Your task to perform on an android device: open app "The Home Depot" (install if not already installed) Image 0: 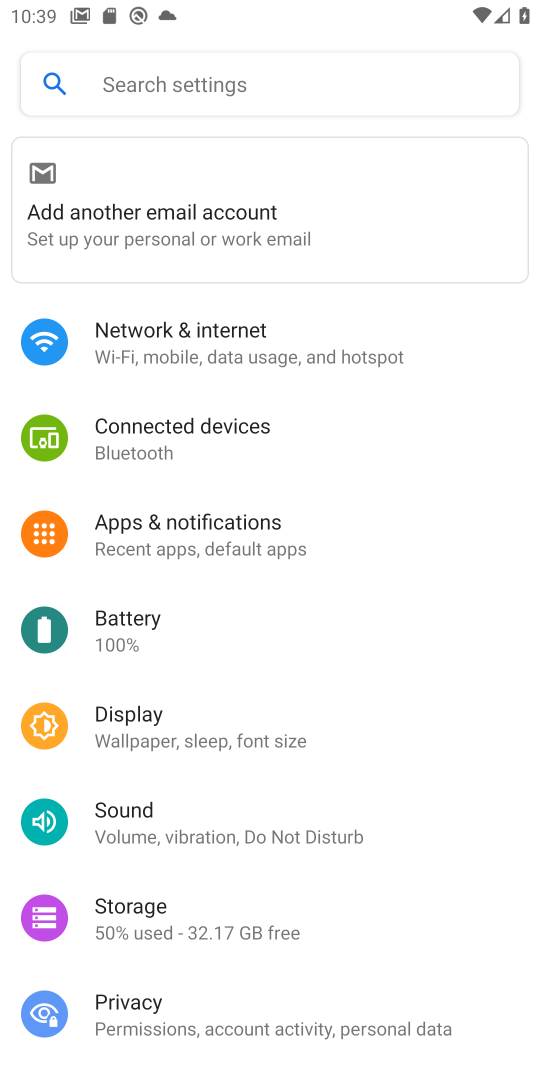
Step 0: press home button
Your task to perform on an android device: open app "The Home Depot" (install if not already installed) Image 1: 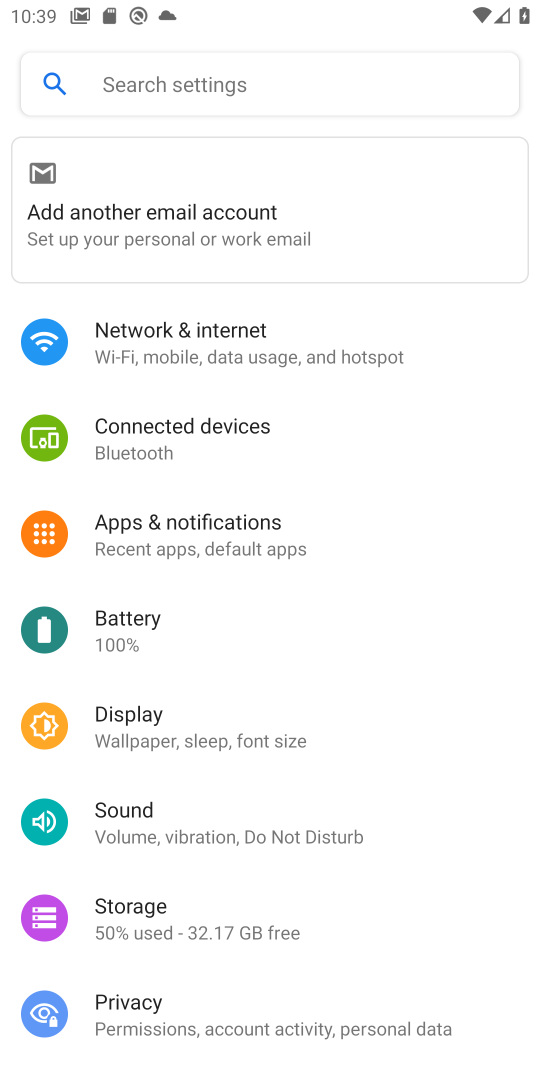
Step 1: press home button
Your task to perform on an android device: open app "The Home Depot" (install if not already installed) Image 2: 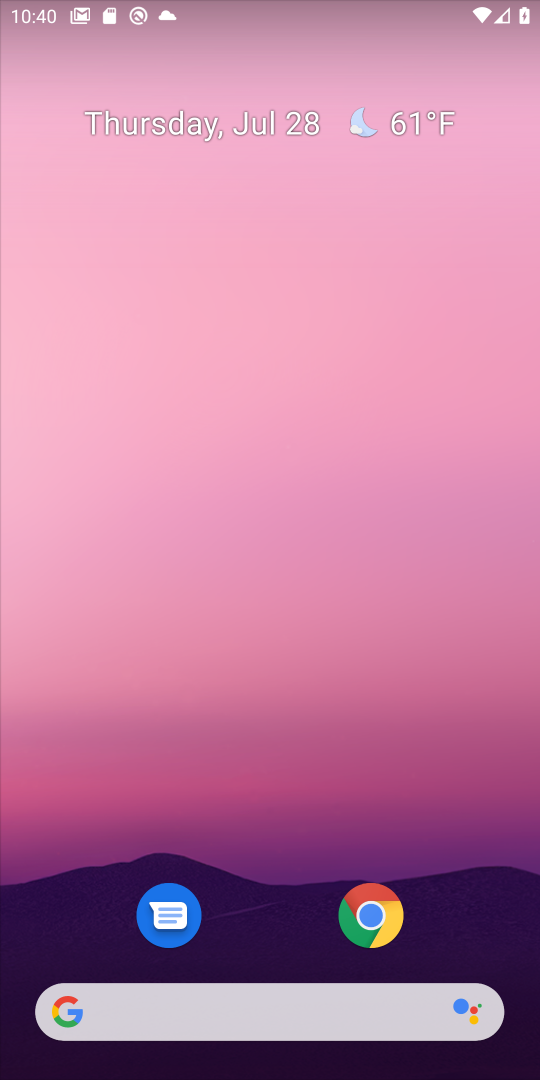
Step 2: drag from (499, 941) to (420, 89)
Your task to perform on an android device: open app "The Home Depot" (install if not already installed) Image 3: 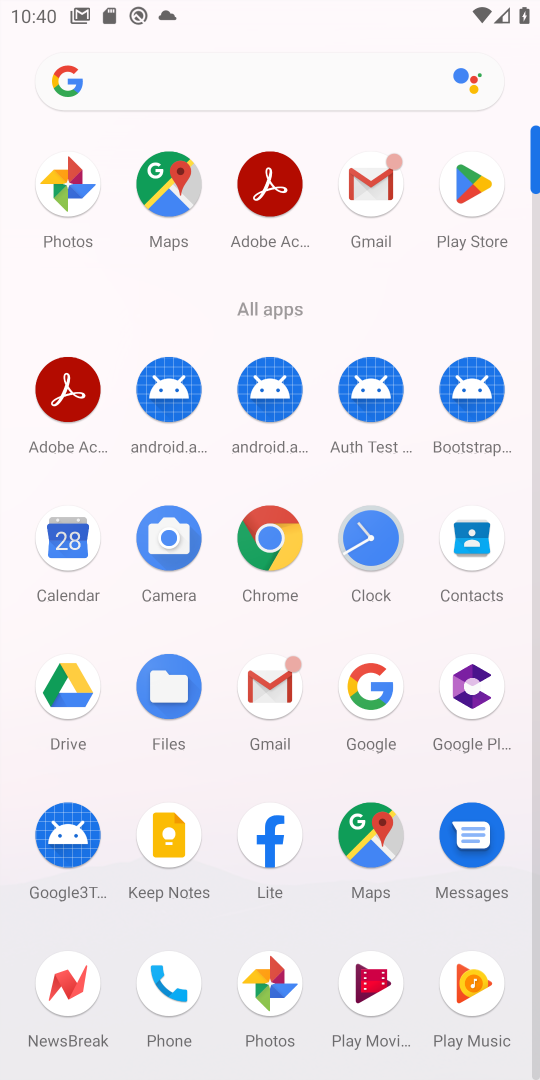
Step 3: click (451, 210)
Your task to perform on an android device: open app "The Home Depot" (install if not already installed) Image 4: 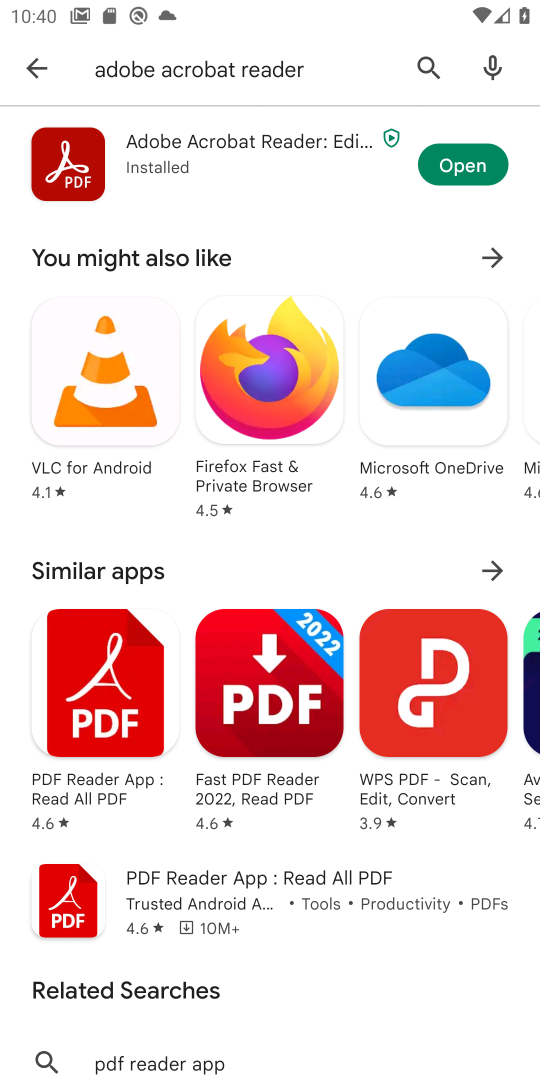
Step 4: click (433, 57)
Your task to perform on an android device: open app "The Home Depot" (install if not already installed) Image 5: 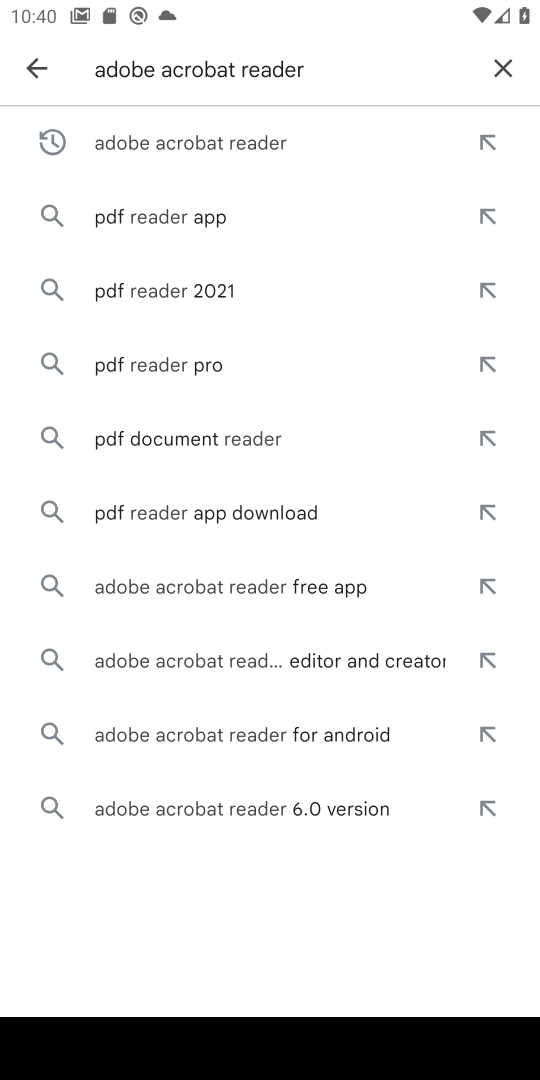
Step 5: click (503, 56)
Your task to perform on an android device: open app "The Home Depot" (install if not already installed) Image 6: 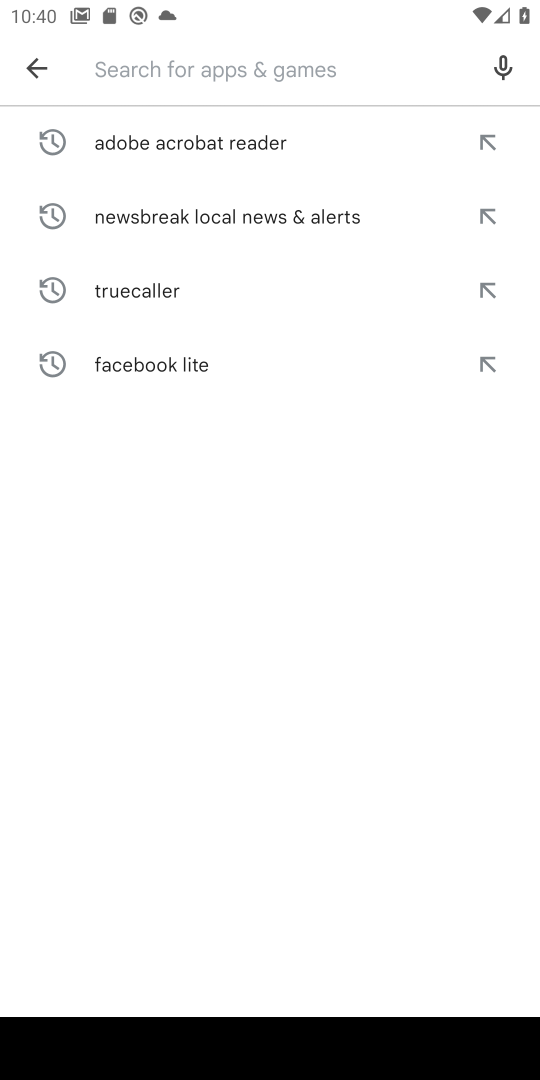
Step 6: type "The Home Depot"
Your task to perform on an android device: open app "The Home Depot" (install if not already installed) Image 7: 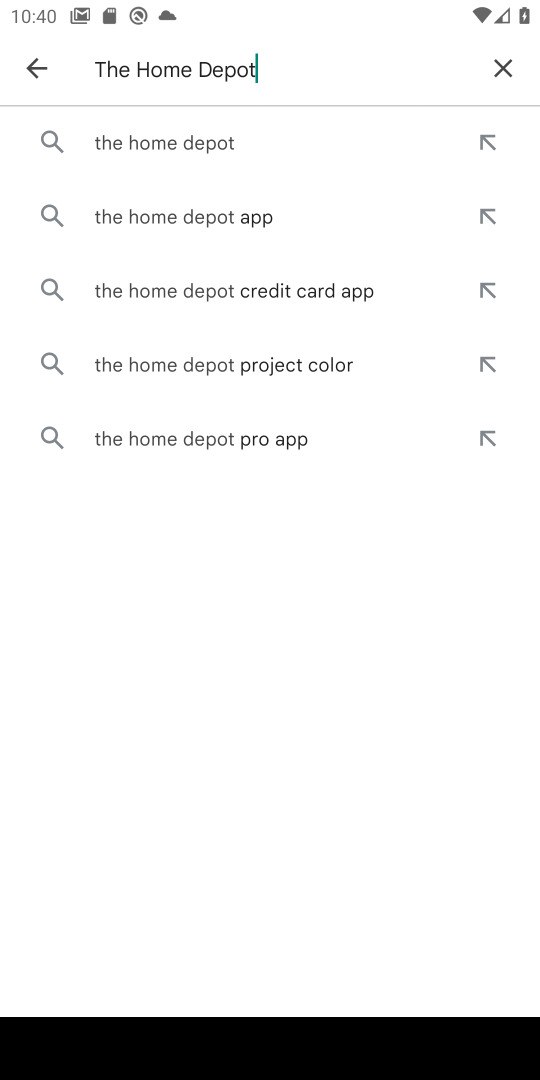
Step 7: click (147, 128)
Your task to perform on an android device: open app "The Home Depot" (install if not already installed) Image 8: 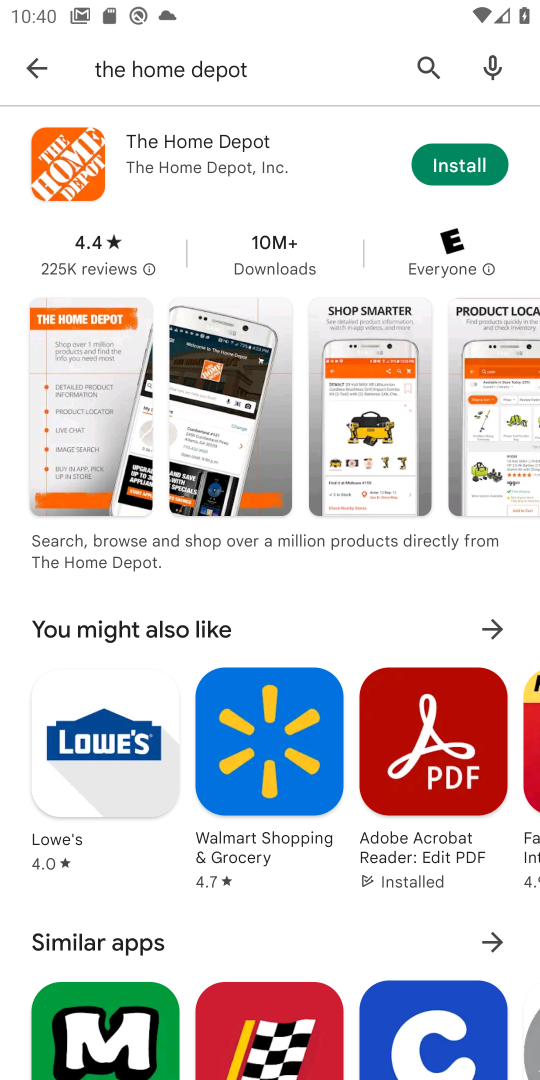
Step 8: click (466, 162)
Your task to perform on an android device: open app "The Home Depot" (install if not already installed) Image 9: 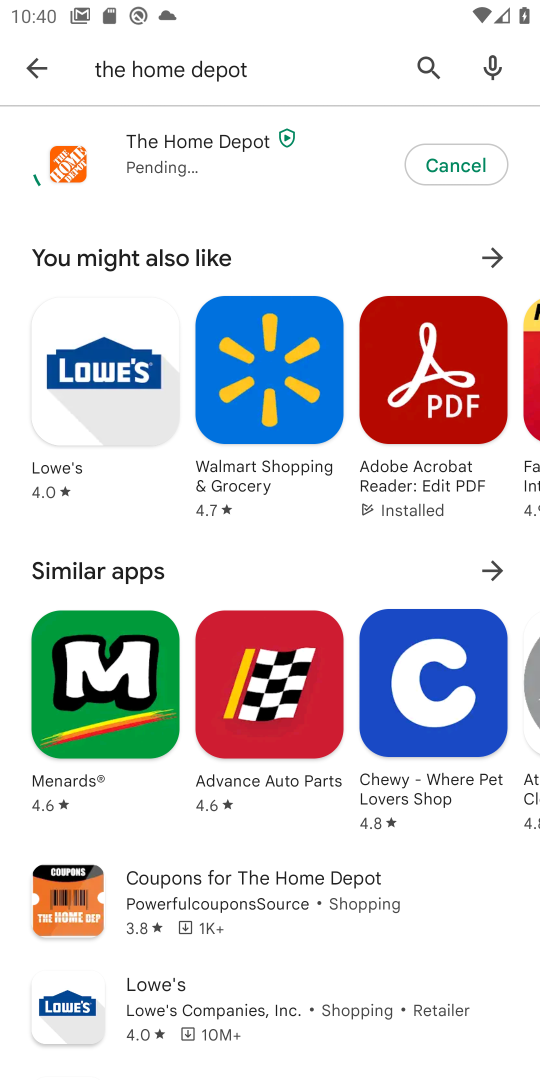
Step 9: click (171, 147)
Your task to perform on an android device: open app "The Home Depot" (install if not already installed) Image 10: 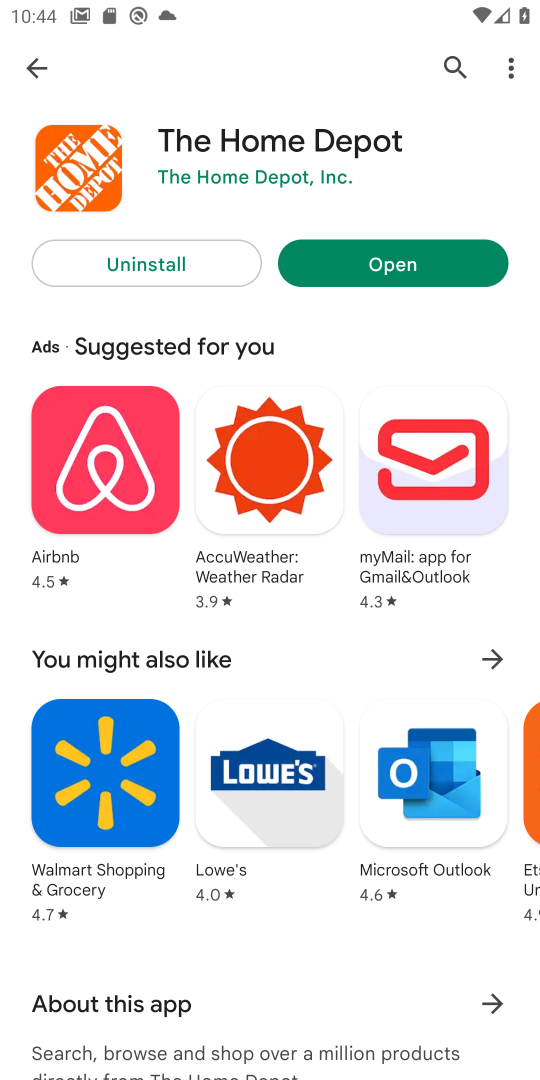
Step 10: click (407, 257)
Your task to perform on an android device: open app "The Home Depot" (install if not already installed) Image 11: 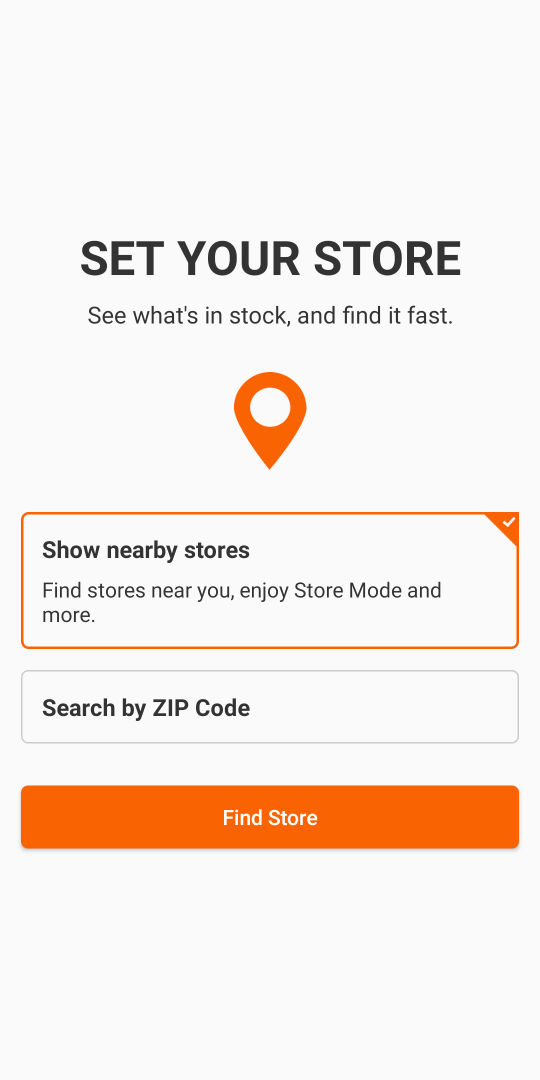
Step 11: task complete